Your task to perform on an android device: Go to notification settings Image 0: 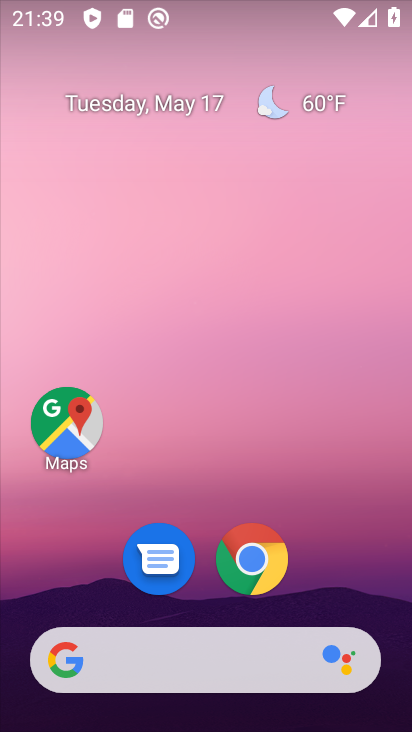
Step 0: drag from (313, 547) to (288, 177)
Your task to perform on an android device: Go to notification settings Image 1: 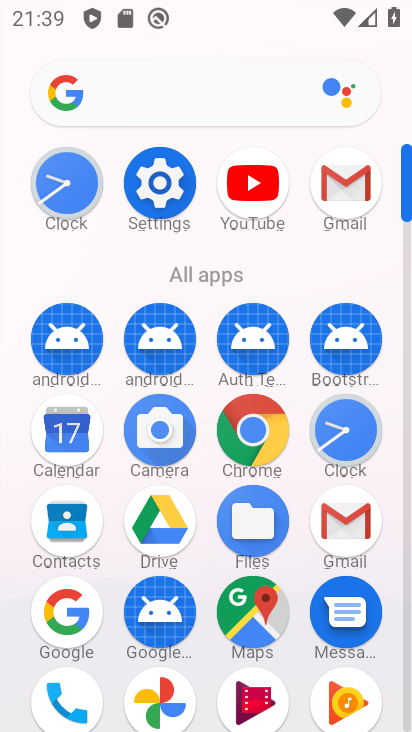
Step 1: click (183, 207)
Your task to perform on an android device: Go to notification settings Image 2: 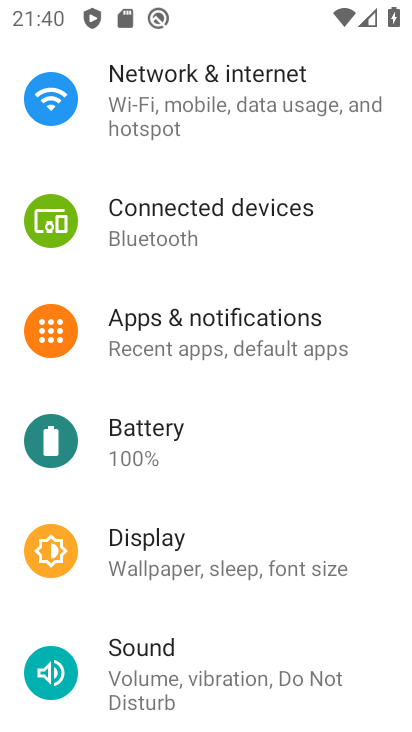
Step 2: click (234, 302)
Your task to perform on an android device: Go to notification settings Image 3: 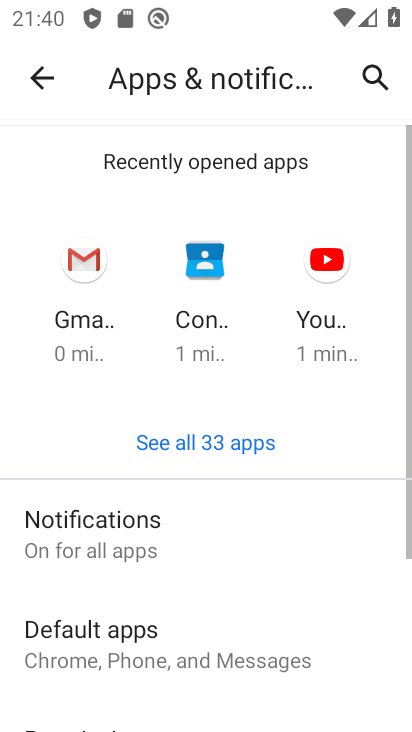
Step 3: click (156, 548)
Your task to perform on an android device: Go to notification settings Image 4: 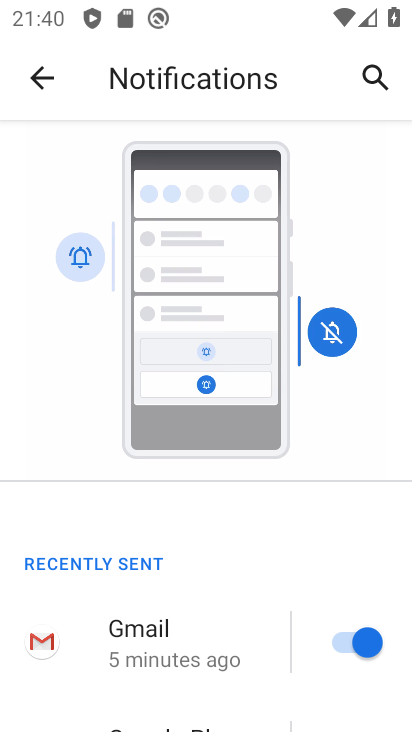
Step 4: task complete